Your task to perform on an android device: Open Google Chrome Image 0: 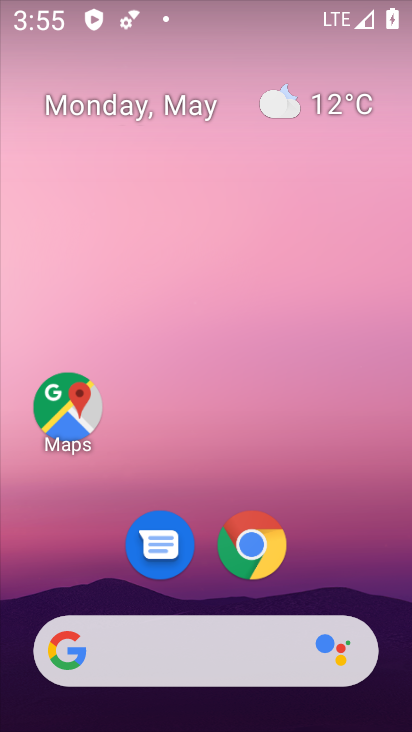
Step 0: click (247, 544)
Your task to perform on an android device: Open Google Chrome Image 1: 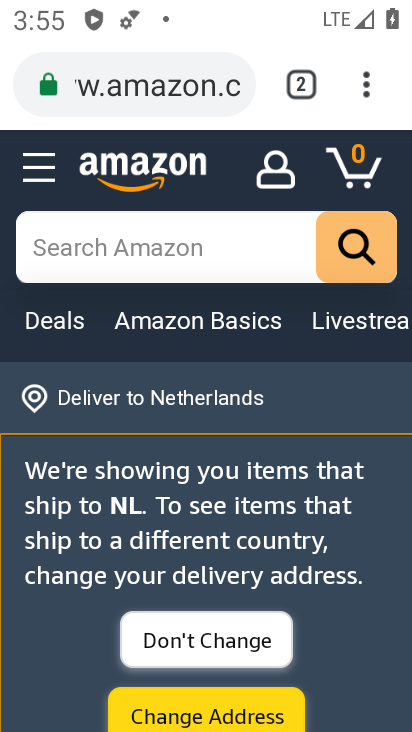
Step 1: task complete